Your task to perform on an android device: see creations saved in the google photos Image 0: 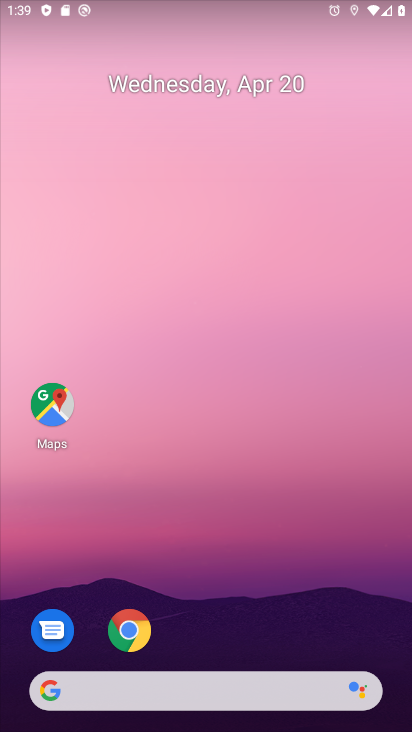
Step 0: drag from (179, 593) to (90, 54)
Your task to perform on an android device: see creations saved in the google photos Image 1: 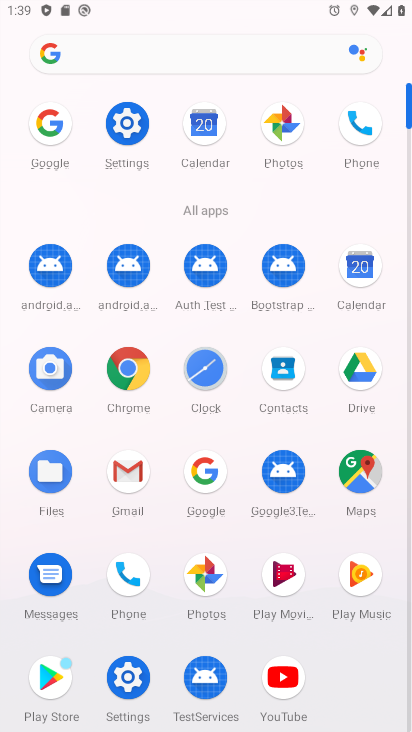
Step 1: click (279, 121)
Your task to perform on an android device: see creations saved in the google photos Image 2: 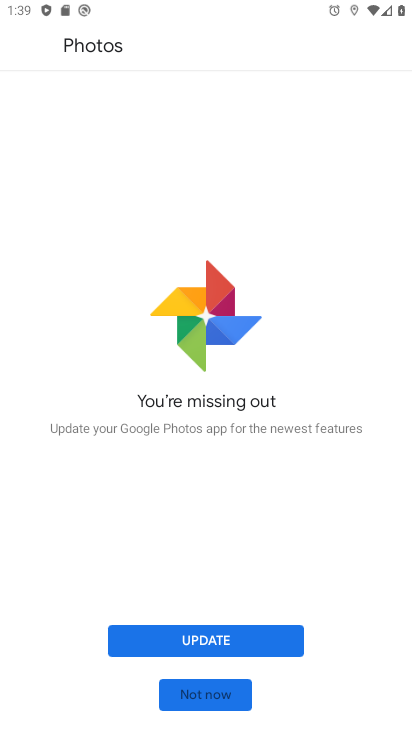
Step 2: click (194, 695)
Your task to perform on an android device: see creations saved in the google photos Image 3: 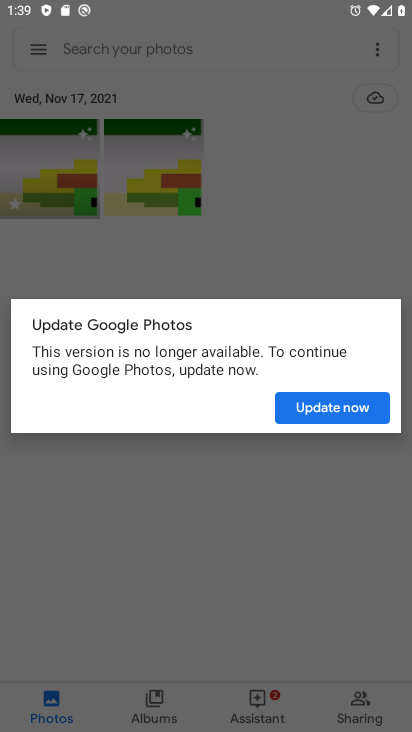
Step 3: click (325, 405)
Your task to perform on an android device: see creations saved in the google photos Image 4: 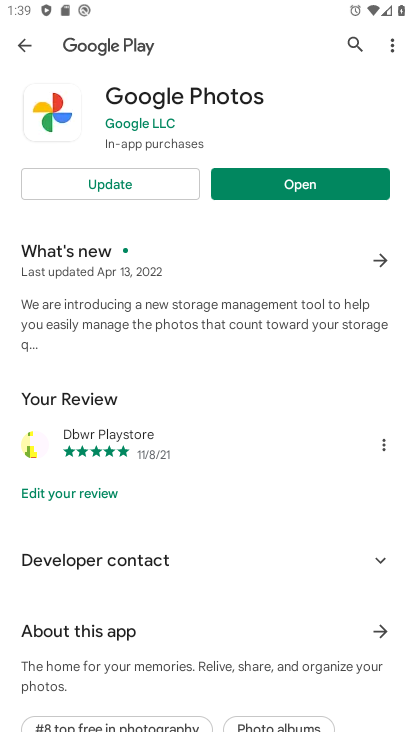
Step 4: press back button
Your task to perform on an android device: see creations saved in the google photos Image 5: 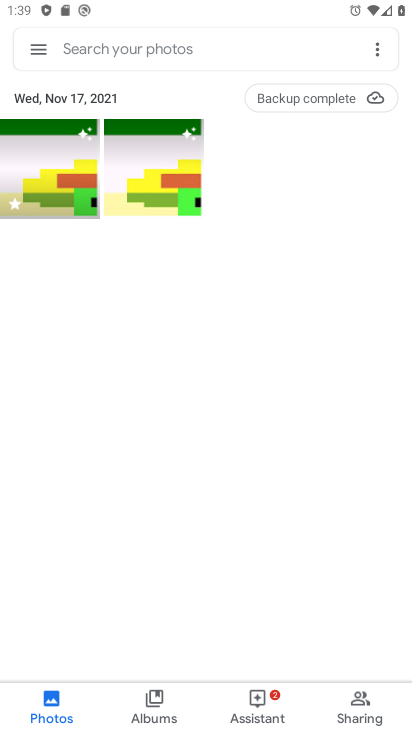
Step 5: click (192, 42)
Your task to perform on an android device: see creations saved in the google photos Image 6: 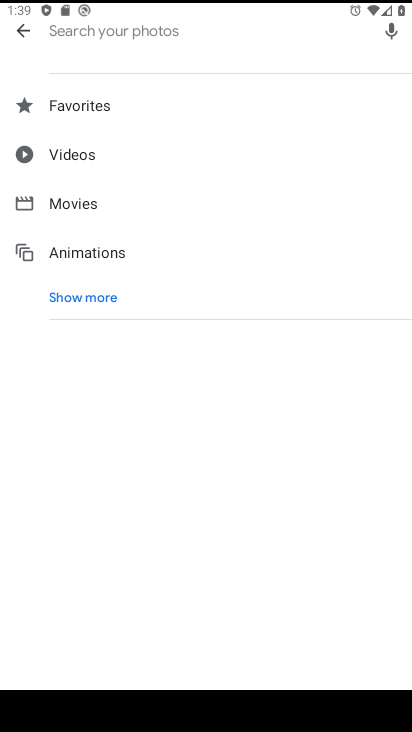
Step 6: click (70, 294)
Your task to perform on an android device: see creations saved in the google photos Image 7: 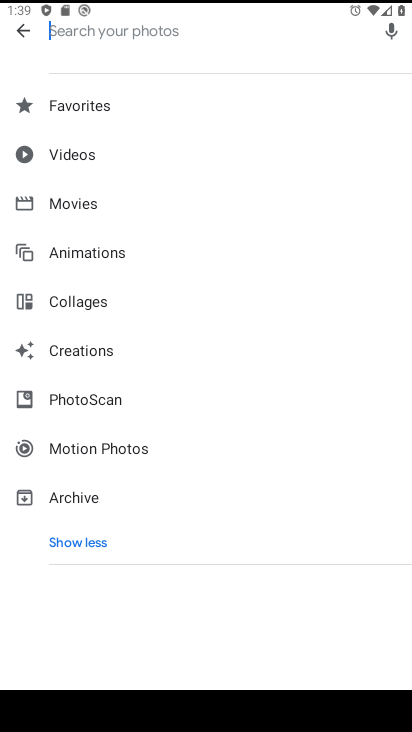
Step 7: click (70, 348)
Your task to perform on an android device: see creations saved in the google photos Image 8: 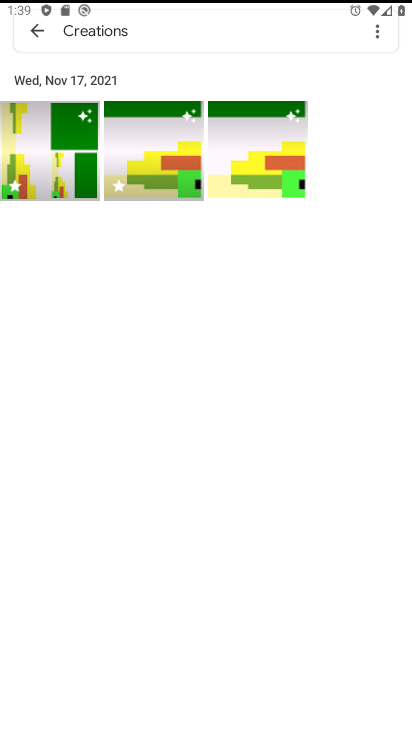
Step 8: task complete